Your task to perform on an android device: open the mobile data screen to see how much data has been used Image 0: 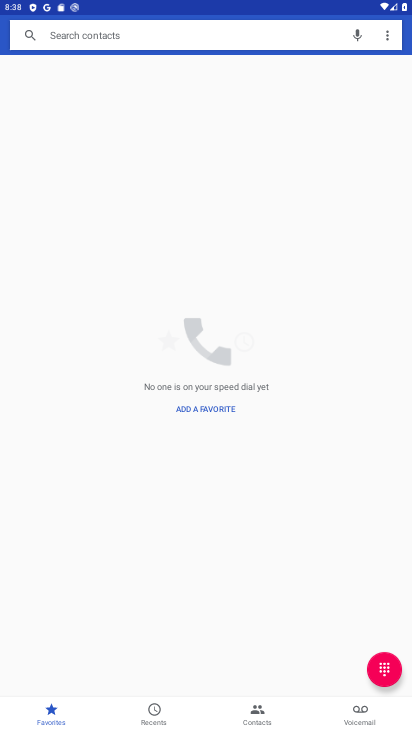
Step 0: drag from (199, 653) to (184, 405)
Your task to perform on an android device: open the mobile data screen to see how much data has been used Image 1: 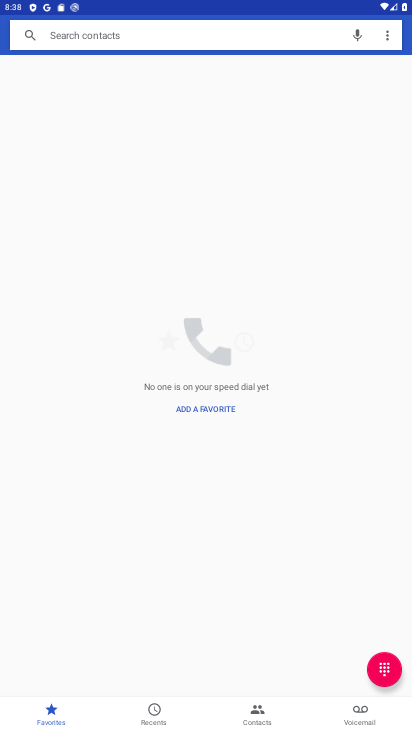
Step 1: press home button
Your task to perform on an android device: open the mobile data screen to see how much data has been used Image 2: 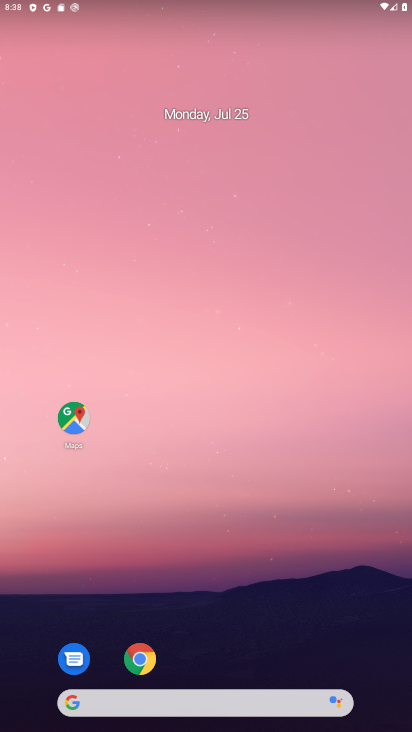
Step 2: drag from (221, 652) to (166, 57)
Your task to perform on an android device: open the mobile data screen to see how much data has been used Image 3: 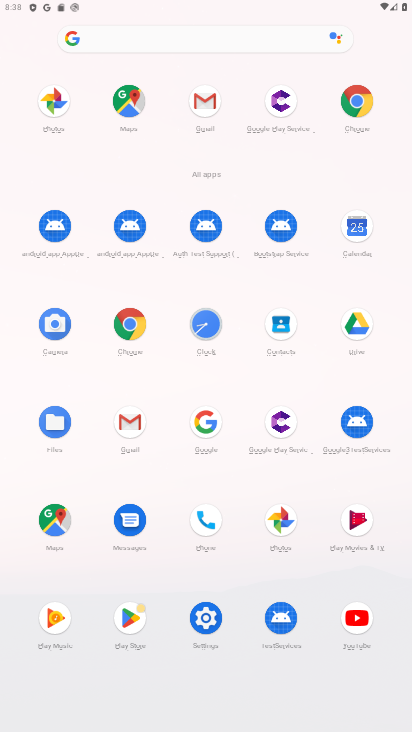
Step 3: click (198, 616)
Your task to perform on an android device: open the mobile data screen to see how much data has been used Image 4: 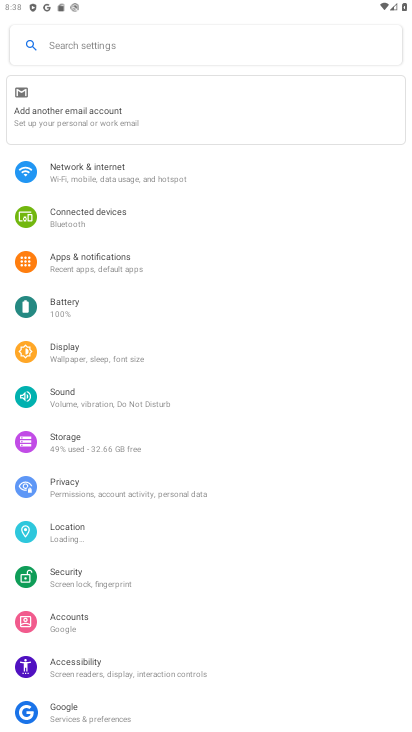
Step 4: click (165, 168)
Your task to perform on an android device: open the mobile data screen to see how much data has been used Image 5: 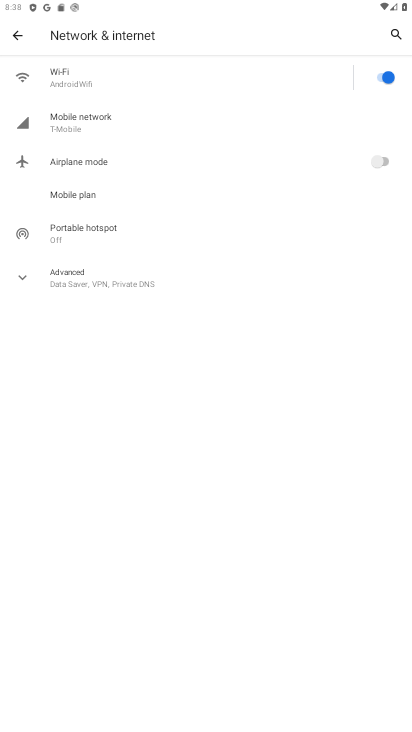
Step 5: click (154, 126)
Your task to perform on an android device: open the mobile data screen to see how much data has been used Image 6: 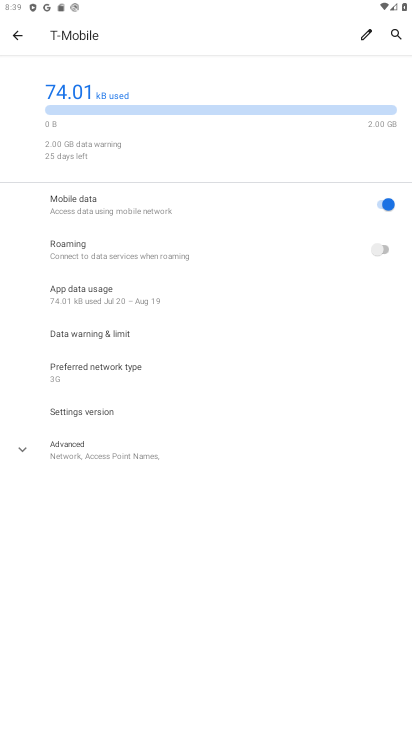
Step 6: task complete